Your task to perform on an android device: Open calendar and show me the fourth week of next month Image 0: 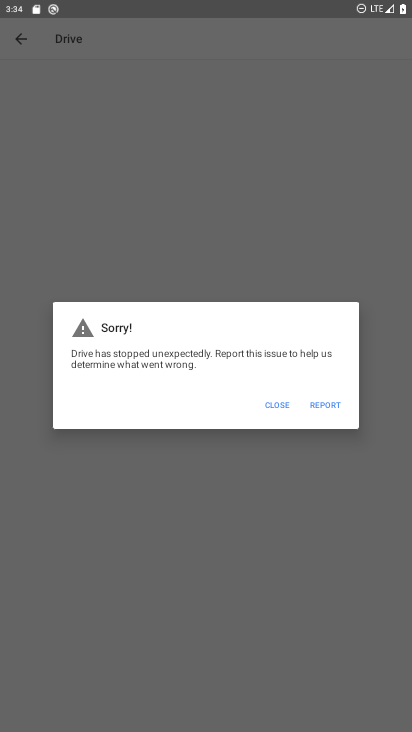
Step 0: press home button
Your task to perform on an android device: Open calendar and show me the fourth week of next month Image 1: 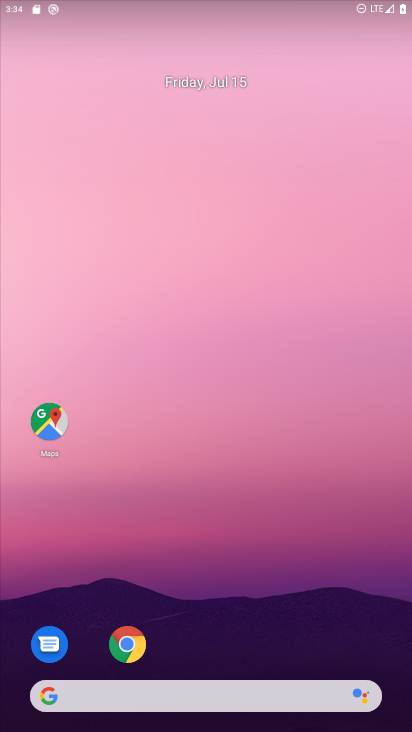
Step 1: drag from (10, 589) to (226, 70)
Your task to perform on an android device: Open calendar and show me the fourth week of next month Image 2: 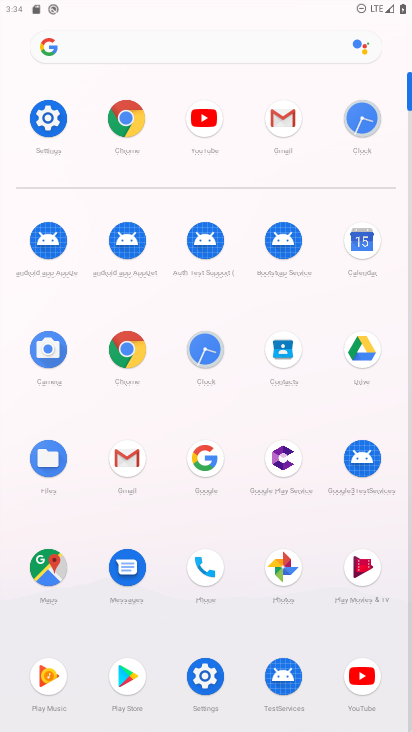
Step 2: click (361, 249)
Your task to perform on an android device: Open calendar and show me the fourth week of next month Image 3: 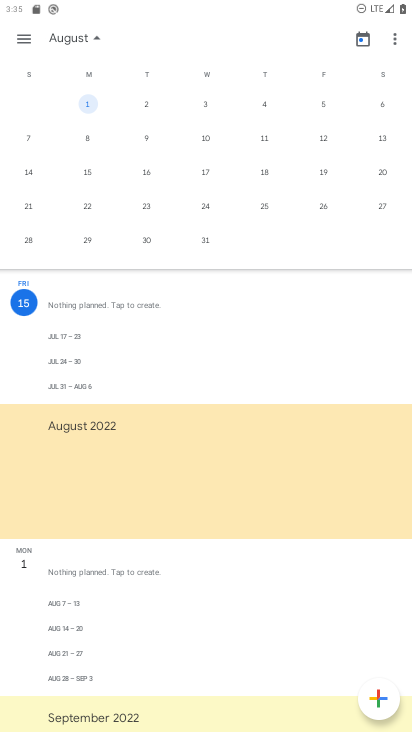
Step 3: click (194, 167)
Your task to perform on an android device: Open calendar and show me the fourth week of next month Image 4: 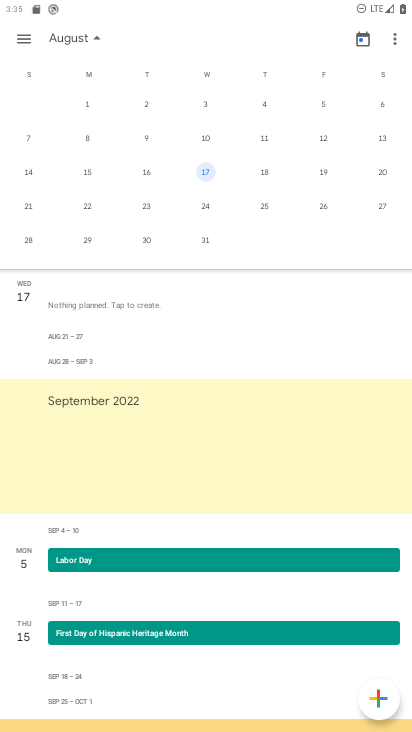
Step 4: task complete